Your task to perform on an android device: turn off airplane mode Image 0: 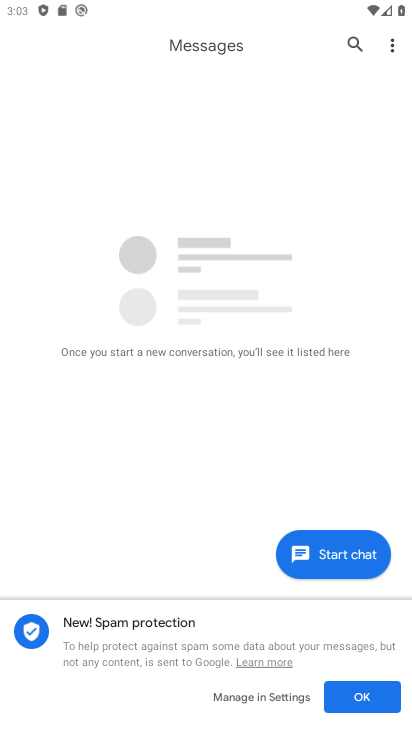
Step 0: press home button
Your task to perform on an android device: turn off airplane mode Image 1: 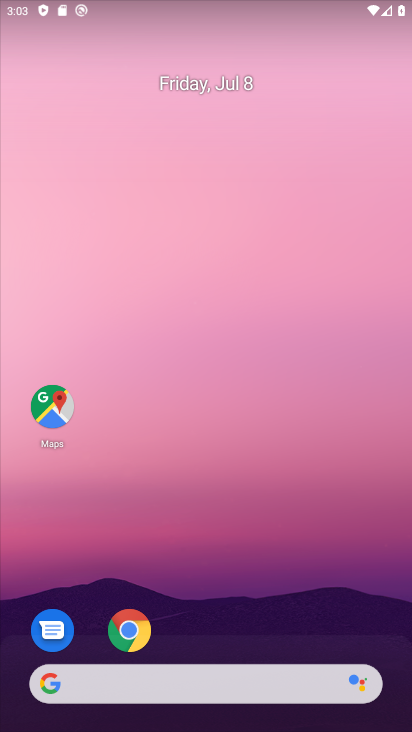
Step 1: drag from (221, 651) to (233, 216)
Your task to perform on an android device: turn off airplane mode Image 2: 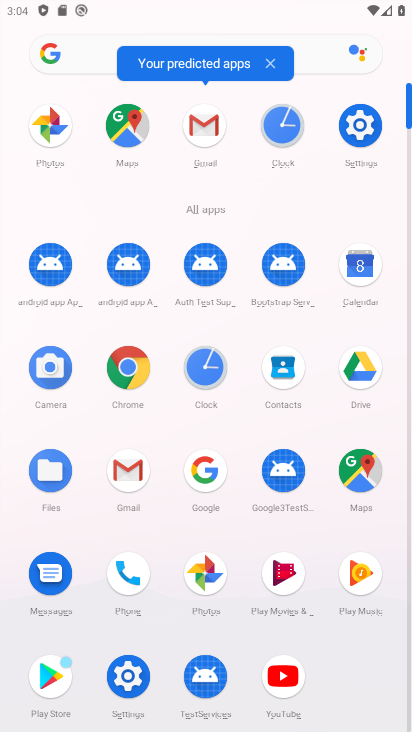
Step 2: click (356, 125)
Your task to perform on an android device: turn off airplane mode Image 3: 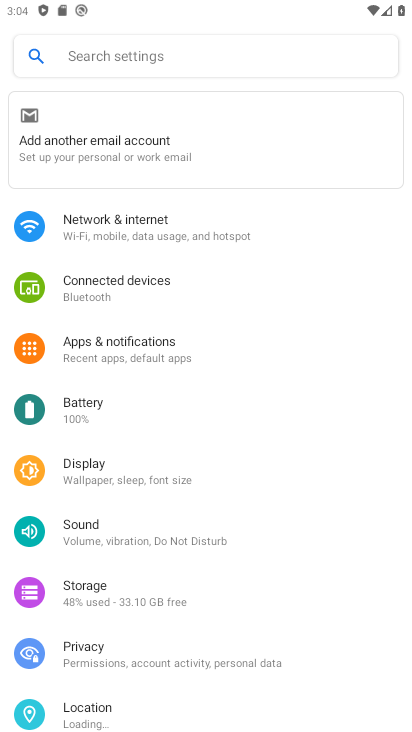
Step 3: click (106, 235)
Your task to perform on an android device: turn off airplane mode Image 4: 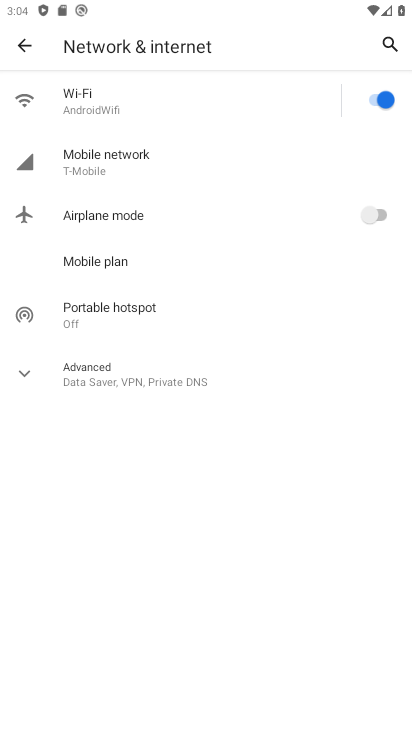
Step 4: task complete